Your task to perform on an android device: Open calendar and show me the fourth week of next month Image 0: 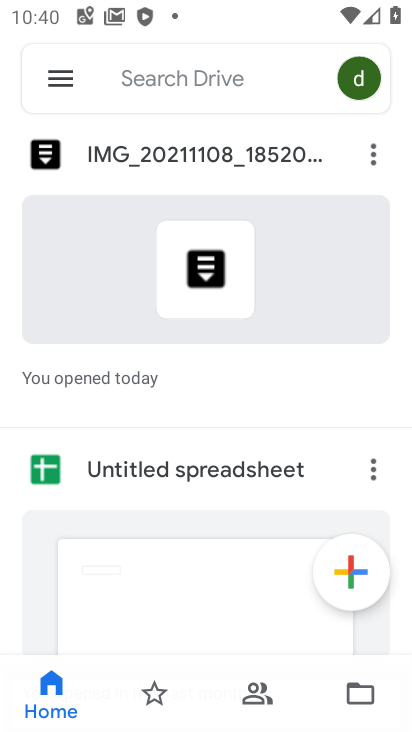
Step 0: press home button
Your task to perform on an android device: Open calendar and show me the fourth week of next month Image 1: 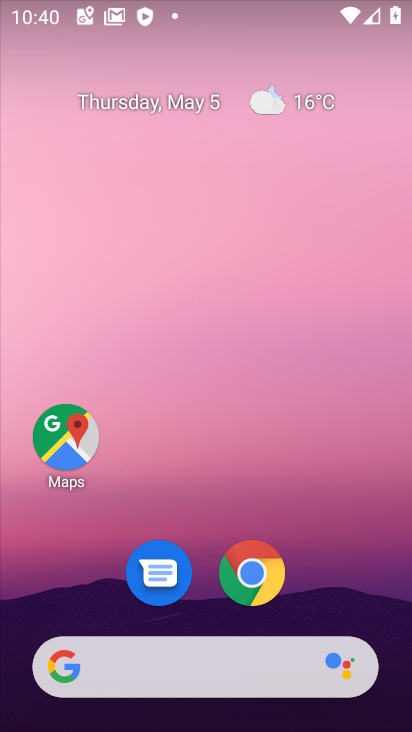
Step 1: drag from (344, 582) to (339, 103)
Your task to perform on an android device: Open calendar and show me the fourth week of next month Image 2: 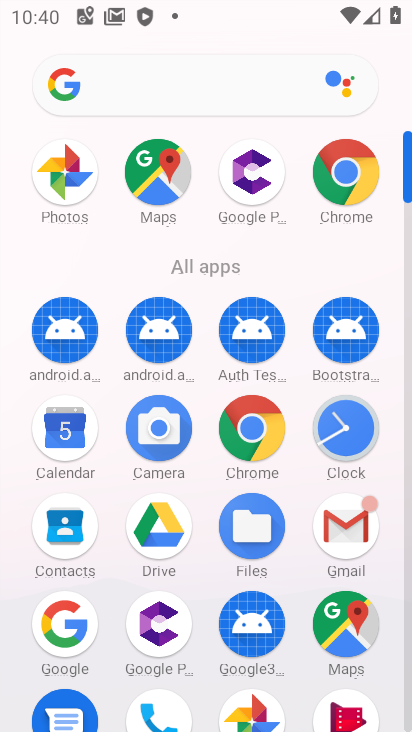
Step 2: click (58, 458)
Your task to perform on an android device: Open calendar and show me the fourth week of next month Image 3: 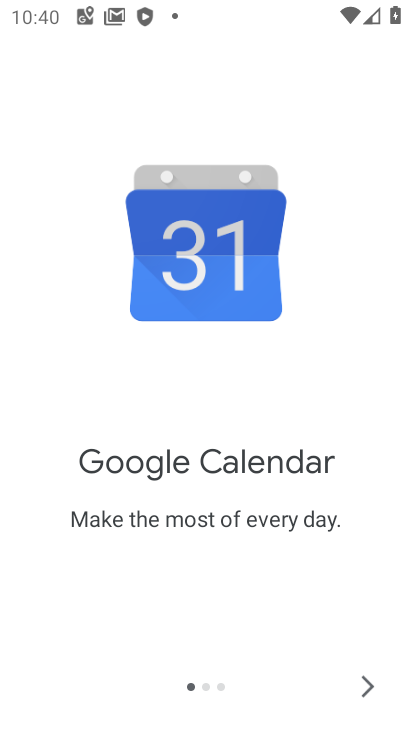
Step 3: click (346, 705)
Your task to perform on an android device: Open calendar and show me the fourth week of next month Image 4: 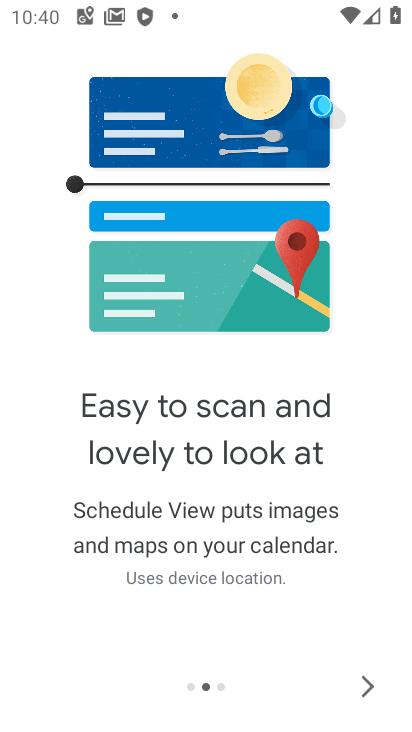
Step 4: click (346, 705)
Your task to perform on an android device: Open calendar and show me the fourth week of next month Image 5: 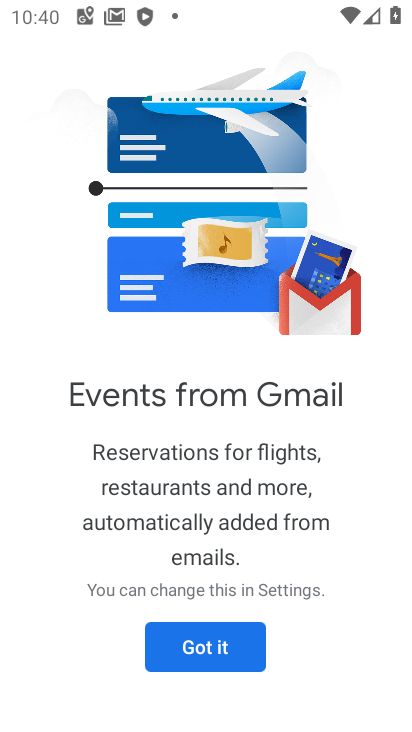
Step 5: click (197, 637)
Your task to perform on an android device: Open calendar and show me the fourth week of next month Image 6: 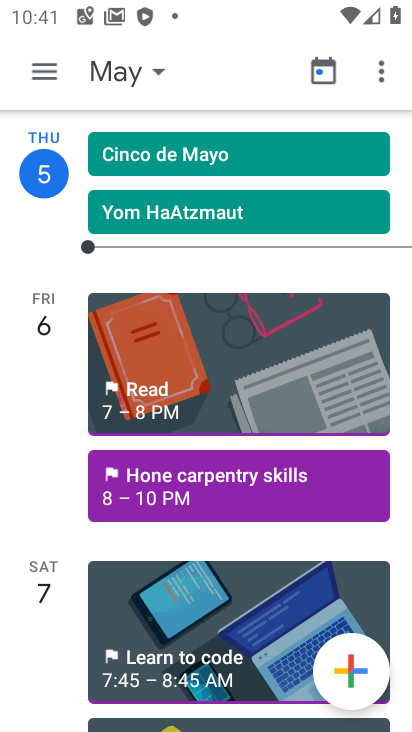
Step 6: click (156, 66)
Your task to perform on an android device: Open calendar and show me the fourth week of next month Image 7: 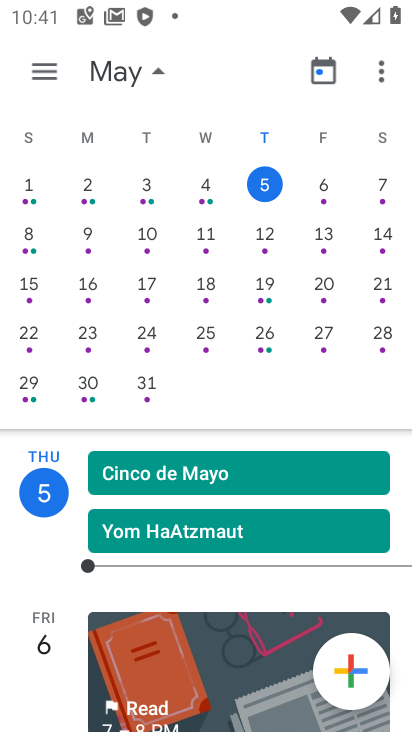
Step 7: drag from (383, 298) to (7, 307)
Your task to perform on an android device: Open calendar and show me the fourth week of next month Image 8: 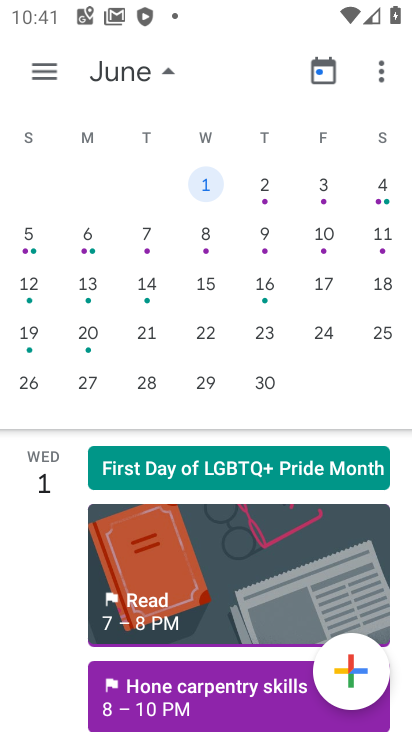
Step 8: click (144, 389)
Your task to perform on an android device: Open calendar and show me the fourth week of next month Image 9: 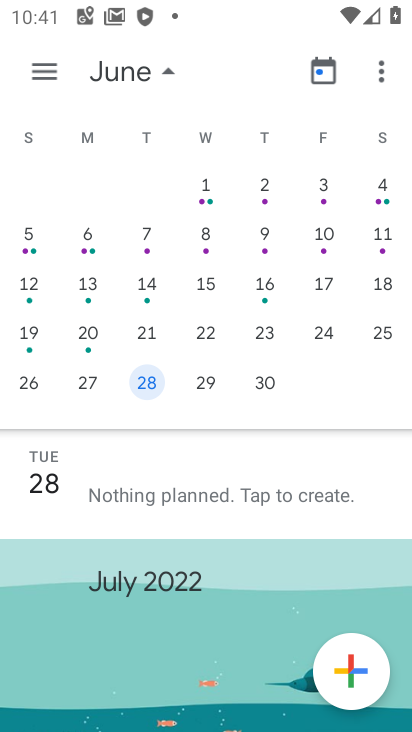
Step 9: task complete